Your task to perform on an android device: turn off improve location accuracy Image 0: 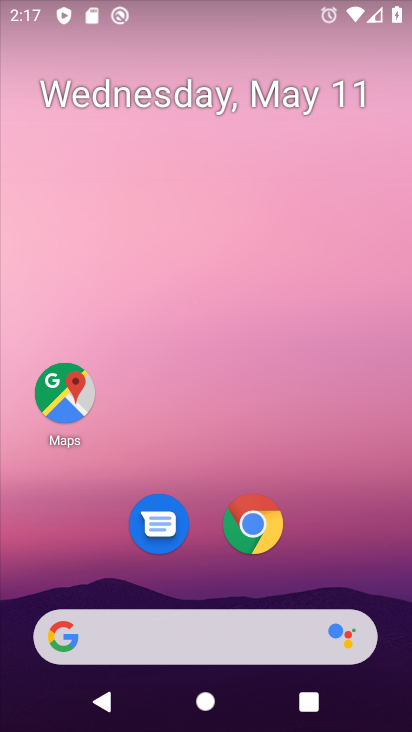
Step 0: drag from (316, 545) to (330, 73)
Your task to perform on an android device: turn off improve location accuracy Image 1: 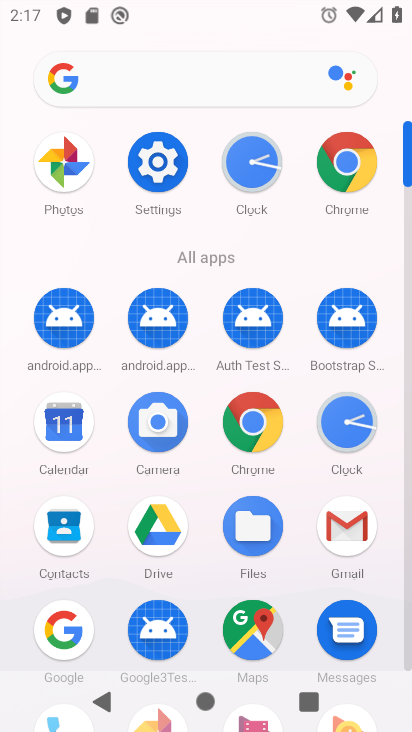
Step 1: click (164, 156)
Your task to perform on an android device: turn off improve location accuracy Image 2: 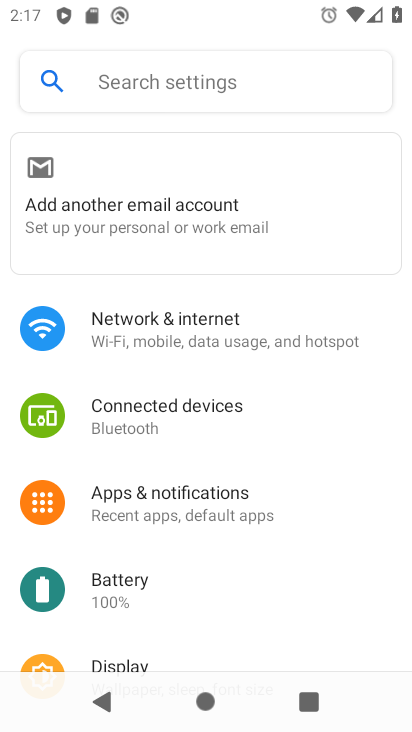
Step 2: drag from (223, 593) to (257, 124)
Your task to perform on an android device: turn off improve location accuracy Image 3: 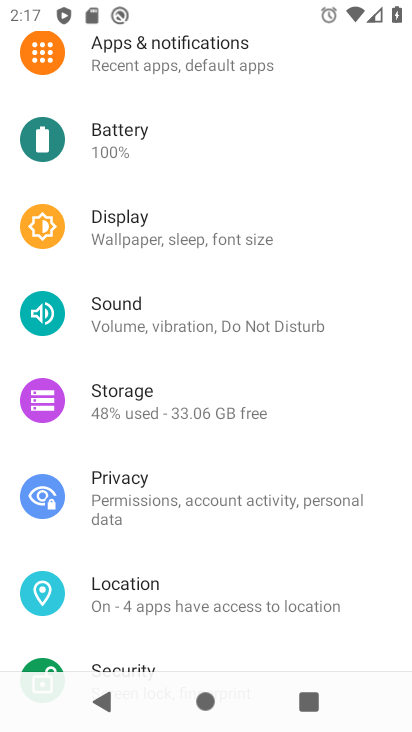
Step 3: click (220, 590)
Your task to perform on an android device: turn off improve location accuracy Image 4: 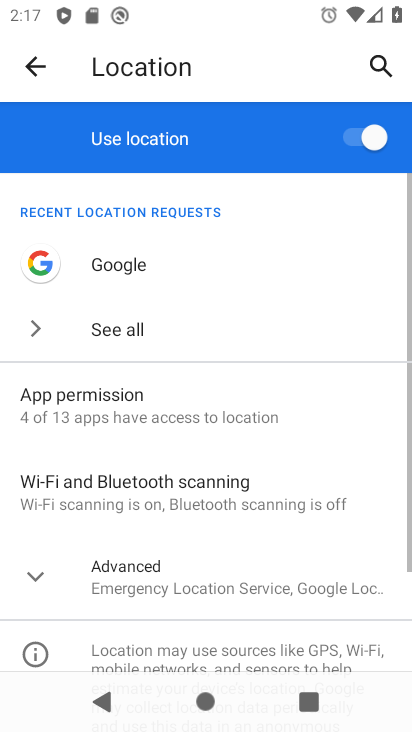
Step 4: click (29, 572)
Your task to perform on an android device: turn off improve location accuracy Image 5: 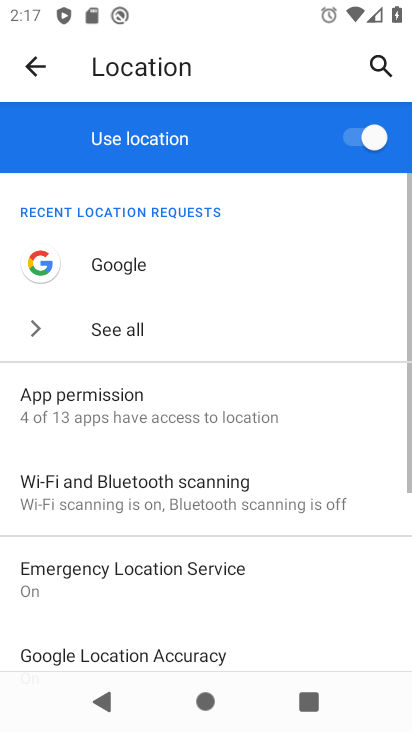
Step 5: drag from (259, 570) to (285, 300)
Your task to perform on an android device: turn off improve location accuracy Image 6: 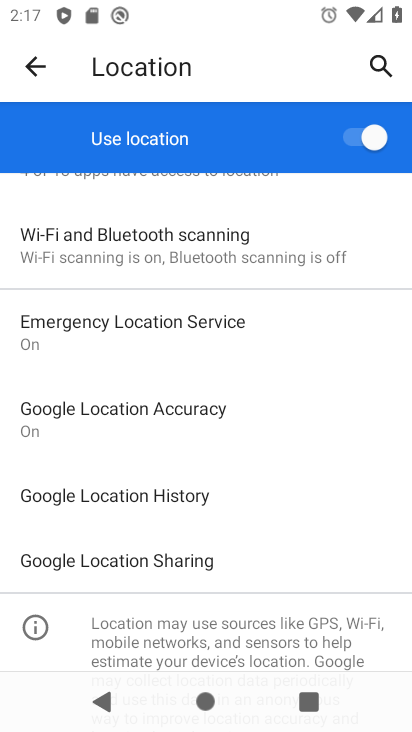
Step 6: click (188, 414)
Your task to perform on an android device: turn off improve location accuracy Image 7: 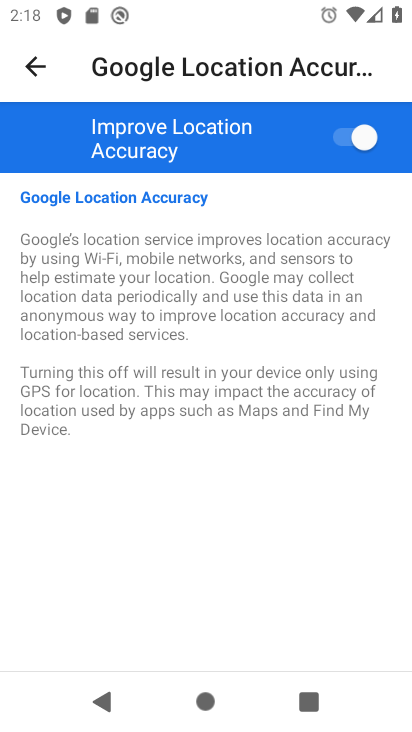
Step 7: click (353, 139)
Your task to perform on an android device: turn off improve location accuracy Image 8: 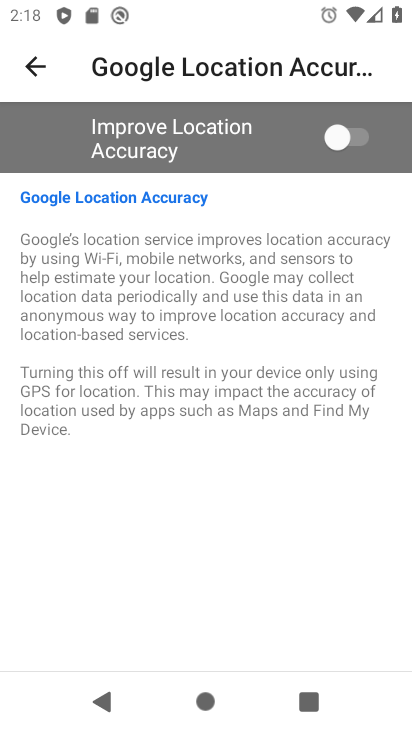
Step 8: task complete